Your task to perform on an android device: Play the last video I watched on Youtube Image 0: 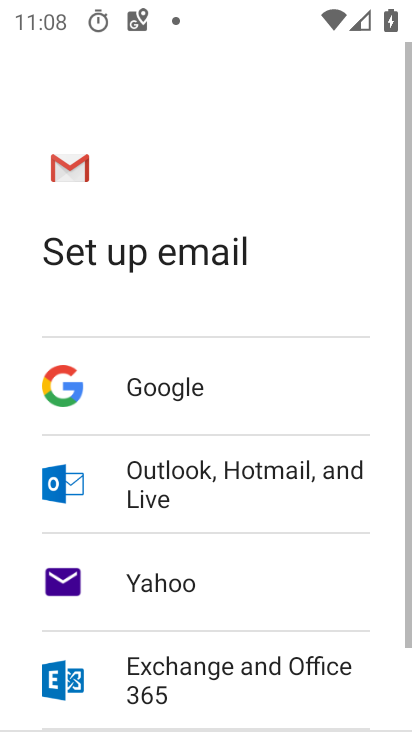
Step 0: press home button
Your task to perform on an android device: Play the last video I watched on Youtube Image 1: 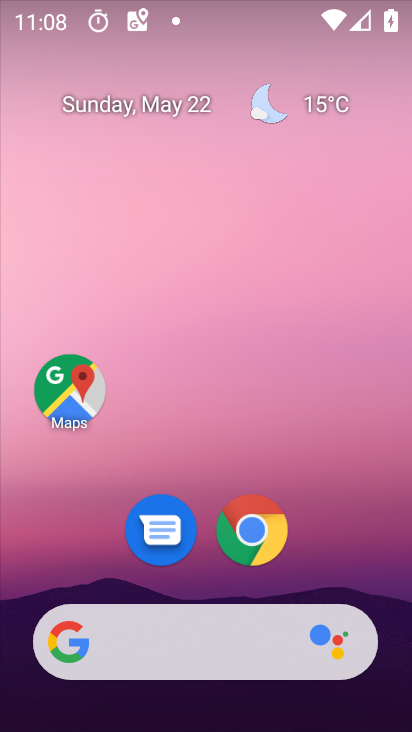
Step 1: drag from (392, 697) to (370, 280)
Your task to perform on an android device: Play the last video I watched on Youtube Image 2: 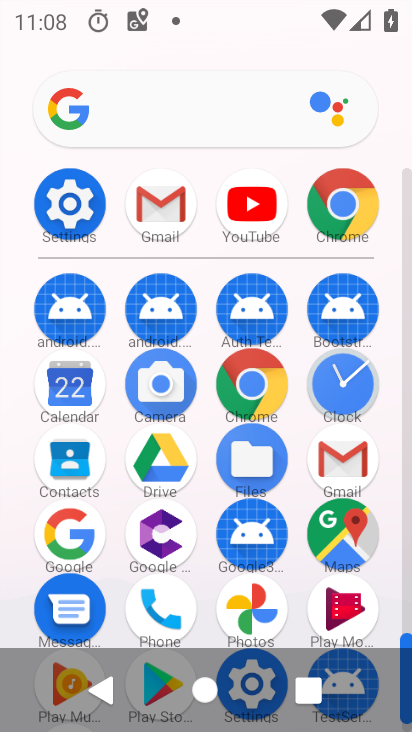
Step 2: click (258, 197)
Your task to perform on an android device: Play the last video I watched on Youtube Image 3: 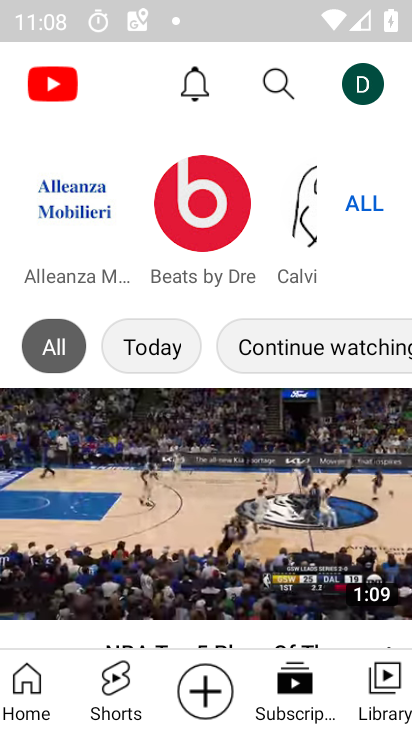
Step 3: click (381, 688)
Your task to perform on an android device: Play the last video I watched on Youtube Image 4: 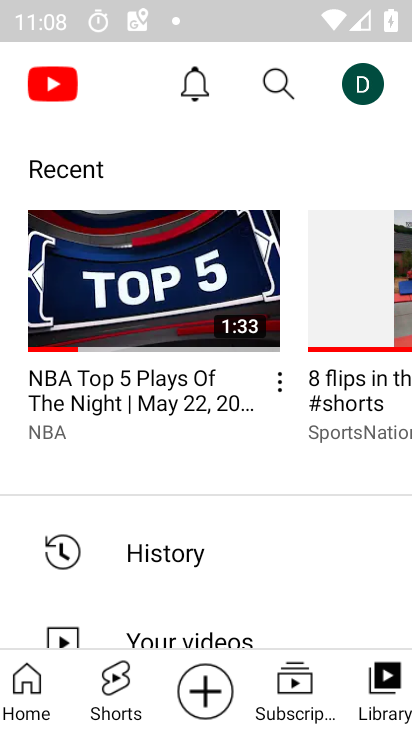
Step 4: click (141, 288)
Your task to perform on an android device: Play the last video I watched on Youtube Image 5: 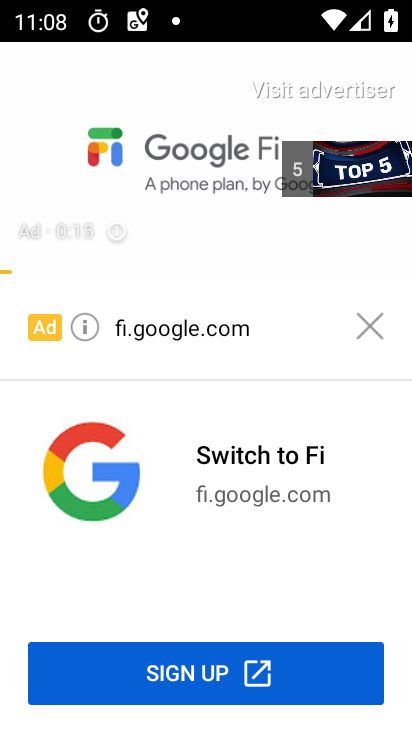
Step 5: task complete